Your task to perform on an android device: choose inbox layout in the gmail app Image 0: 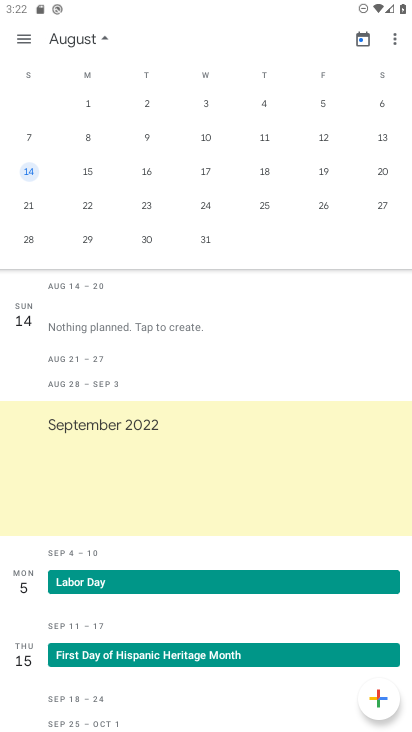
Step 0: press home button
Your task to perform on an android device: choose inbox layout in the gmail app Image 1: 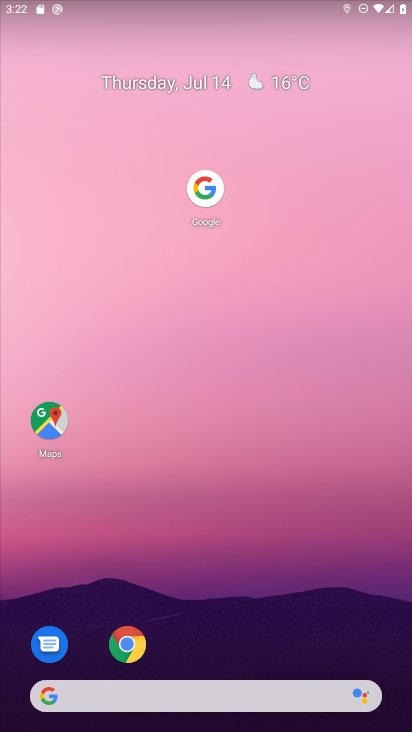
Step 1: drag from (244, 637) to (262, 248)
Your task to perform on an android device: choose inbox layout in the gmail app Image 2: 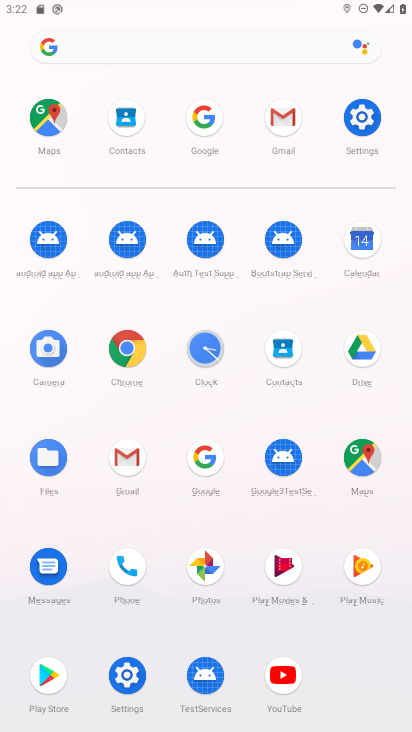
Step 2: click (295, 131)
Your task to perform on an android device: choose inbox layout in the gmail app Image 3: 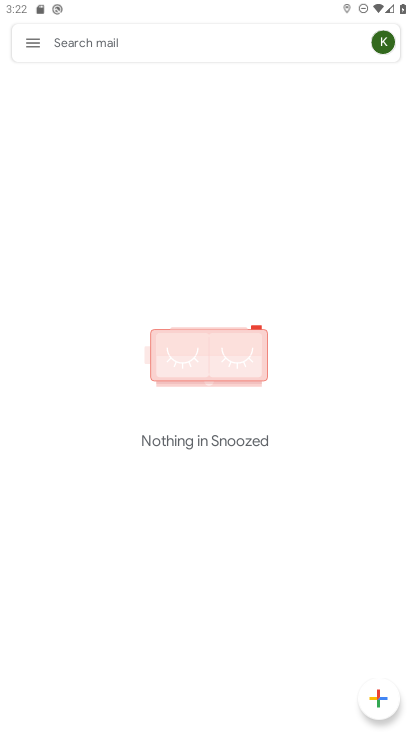
Step 3: click (31, 42)
Your task to perform on an android device: choose inbox layout in the gmail app Image 4: 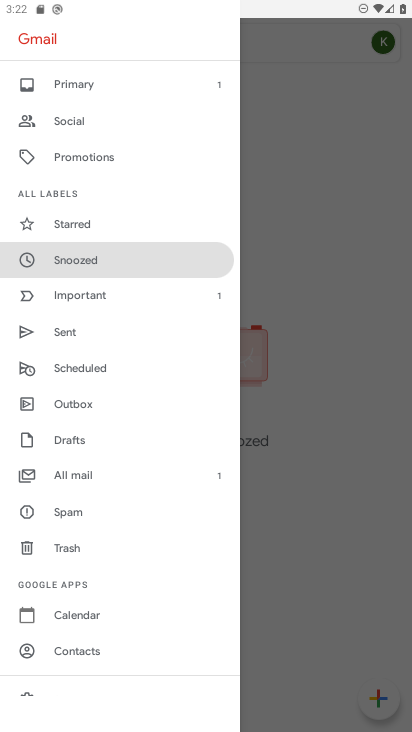
Step 4: drag from (93, 676) to (94, 468)
Your task to perform on an android device: choose inbox layout in the gmail app Image 5: 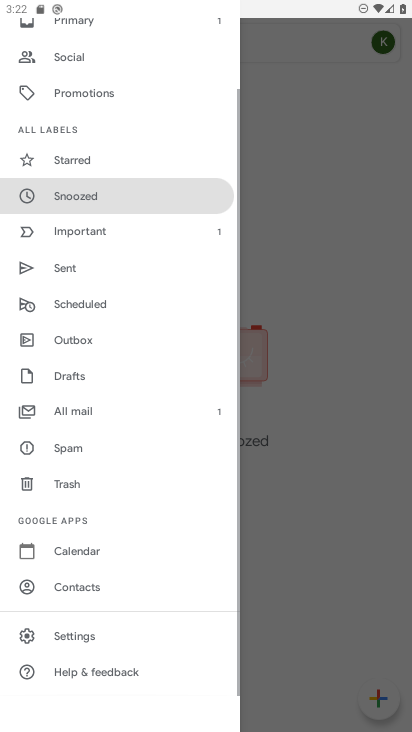
Step 5: click (83, 623)
Your task to perform on an android device: choose inbox layout in the gmail app Image 6: 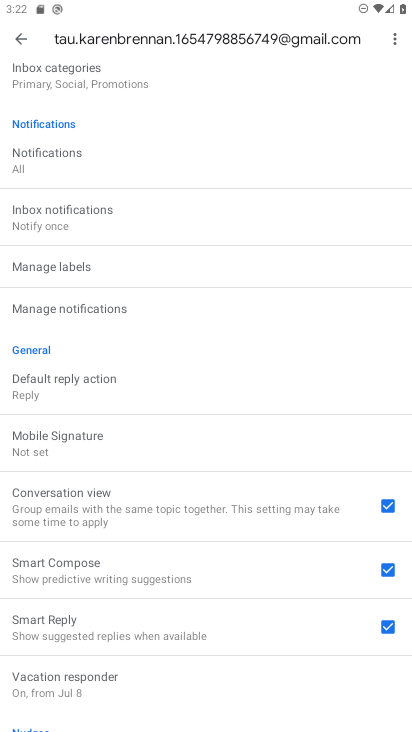
Step 6: drag from (161, 213) to (161, 541)
Your task to perform on an android device: choose inbox layout in the gmail app Image 7: 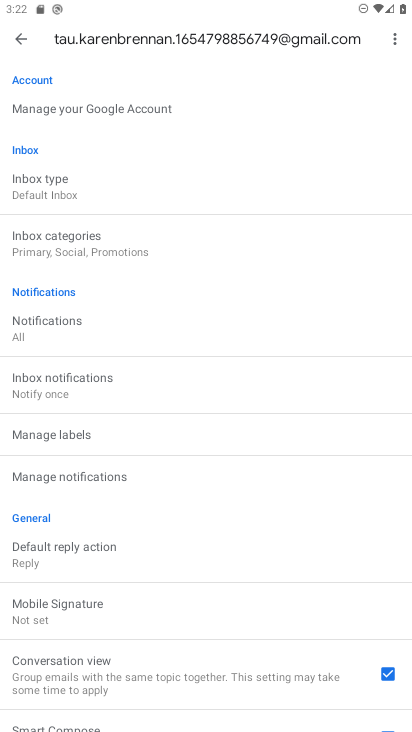
Step 7: click (106, 196)
Your task to perform on an android device: choose inbox layout in the gmail app Image 8: 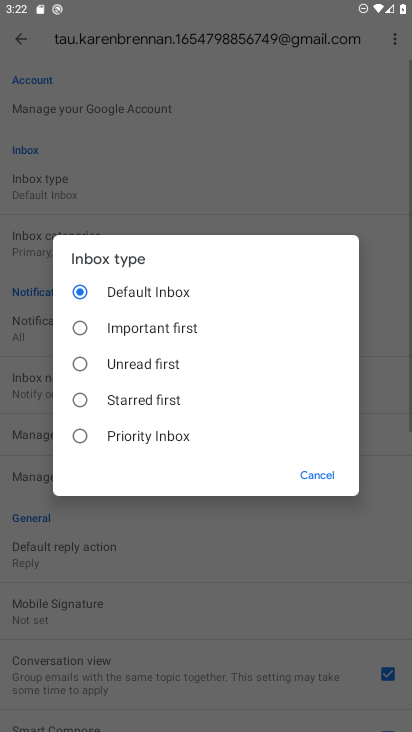
Step 8: click (131, 443)
Your task to perform on an android device: choose inbox layout in the gmail app Image 9: 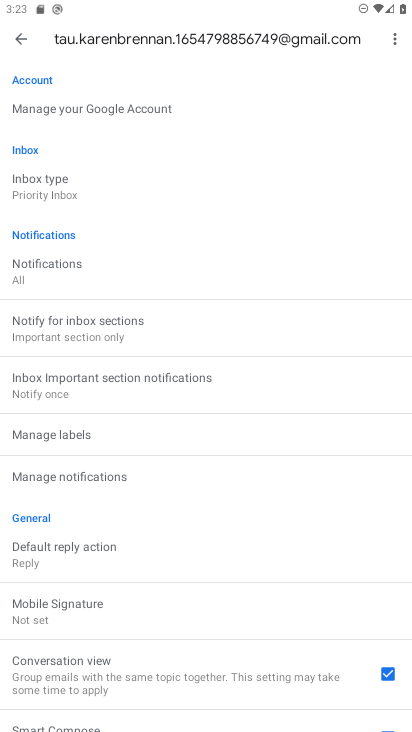
Step 9: task complete